Your task to perform on an android device: Search for vegetarian restaurants on Maps Image 0: 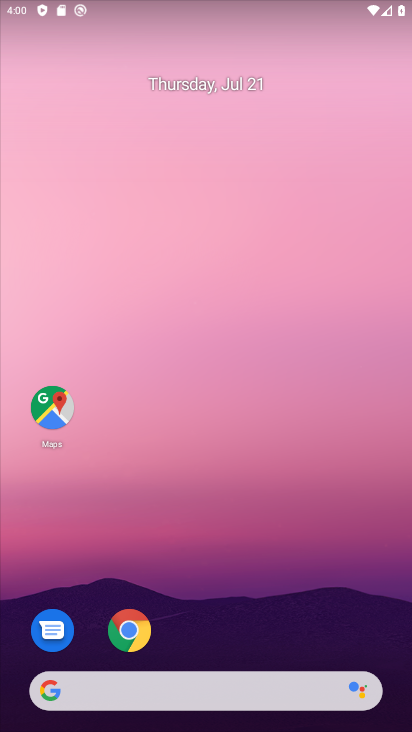
Step 0: click (57, 413)
Your task to perform on an android device: Search for vegetarian restaurants on Maps Image 1: 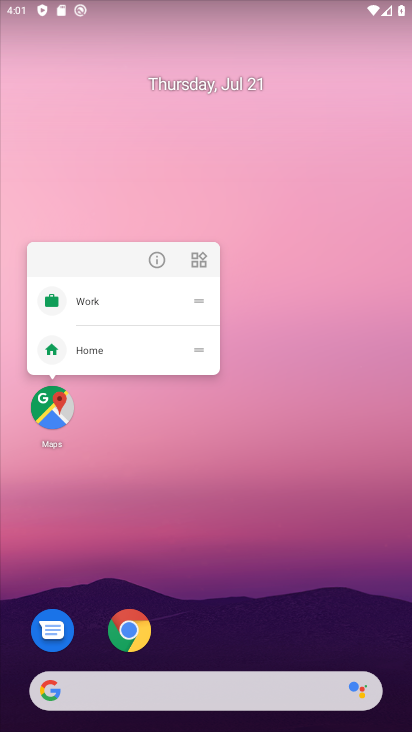
Step 1: click (51, 409)
Your task to perform on an android device: Search for vegetarian restaurants on Maps Image 2: 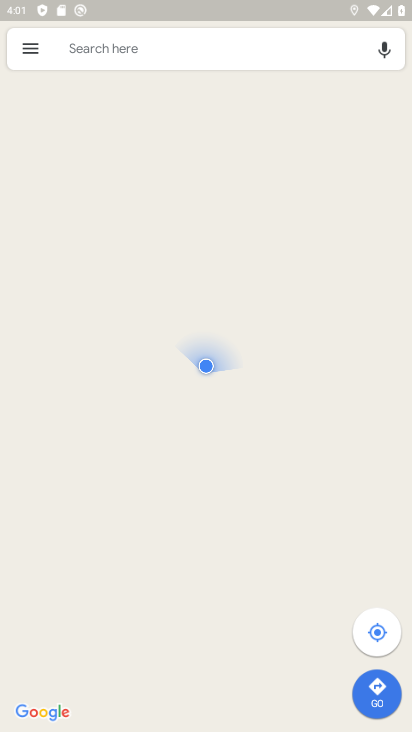
Step 2: click (89, 43)
Your task to perform on an android device: Search for vegetarian restaurants on Maps Image 3: 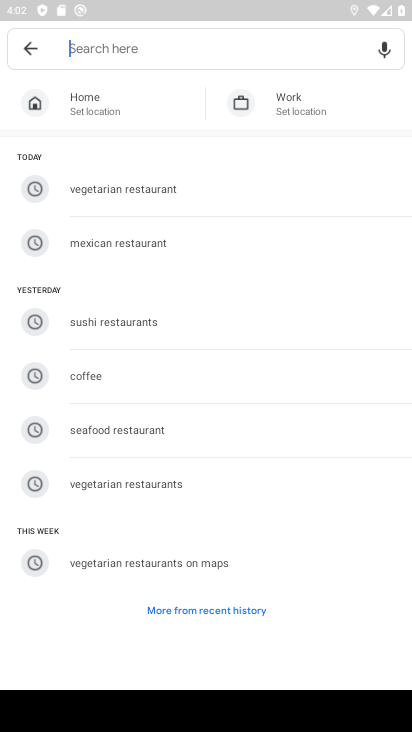
Step 3: click (139, 188)
Your task to perform on an android device: Search for vegetarian restaurants on Maps Image 4: 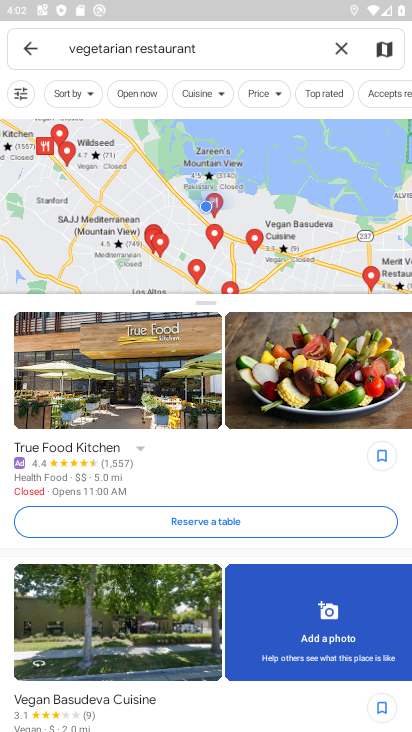
Step 4: task complete